Your task to perform on an android device: clear history in the chrome app Image 0: 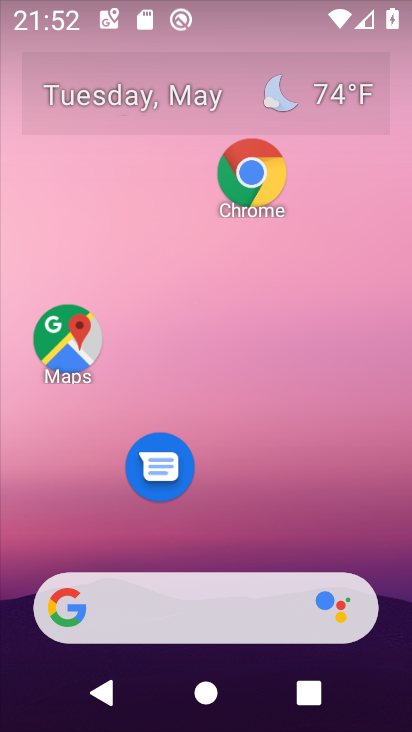
Step 0: drag from (368, 519) to (328, 87)
Your task to perform on an android device: clear history in the chrome app Image 1: 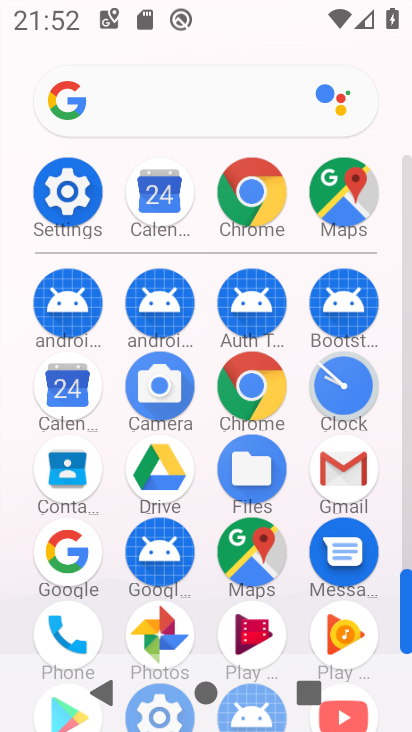
Step 1: click (244, 388)
Your task to perform on an android device: clear history in the chrome app Image 2: 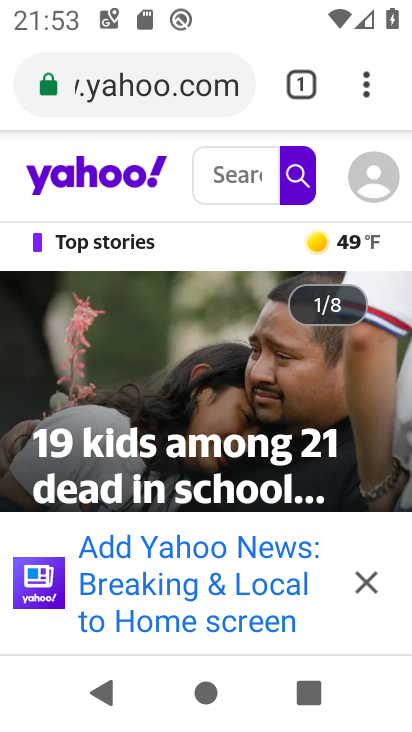
Step 2: drag from (367, 80) to (78, 481)
Your task to perform on an android device: clear history in the chrome app Image 3: 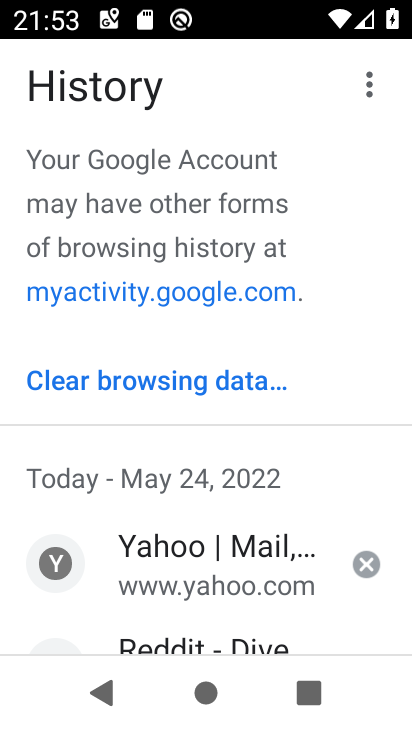
Step 3: click (111, 371)
Your task to perform on an android device: clear history in the chrome app Image 4: 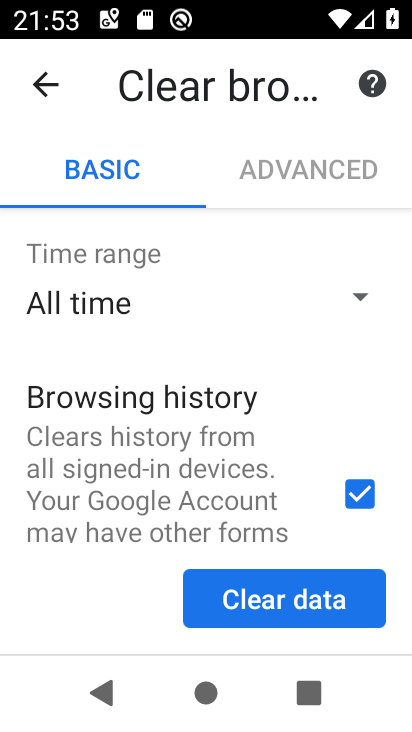
Step 4: click (253, 593)
Your task to perform on an android device: clear history in the chrome app Image 5: 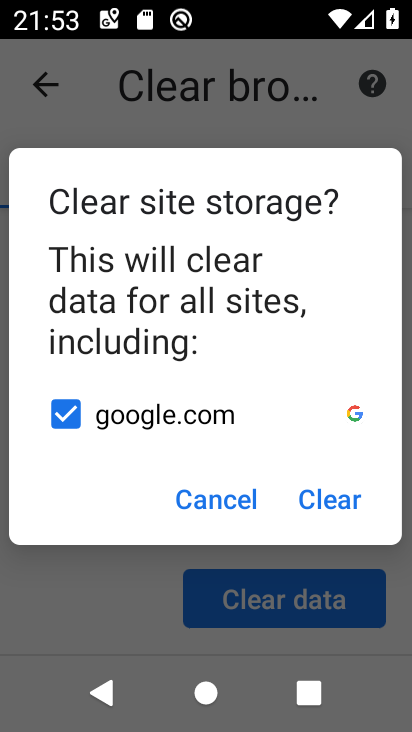
Step 5: click (346, 508)
Your task to perform on an android device: clear history in the chrome app Image 6: 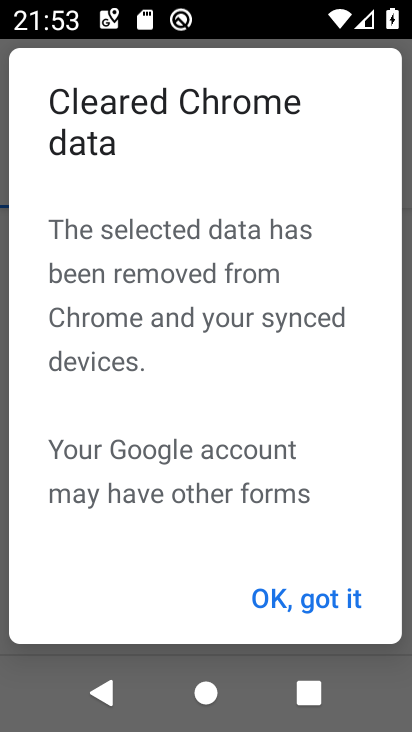
Step 6: click (331, 585)
Your task to perform on an android device: clear history in the chrome app Image 7: 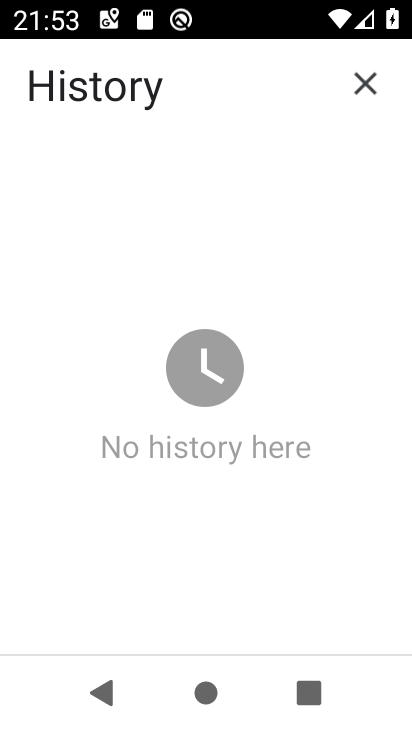
Step 7: task complete